Your task to perform on an android device: all mails in gmail Image 0: 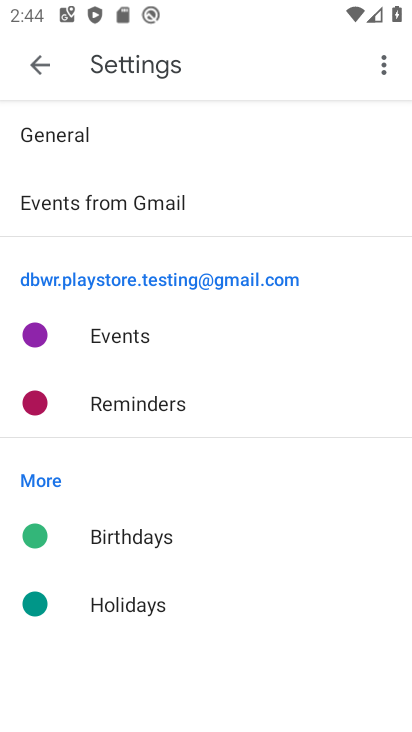
Step 0: press home button
Your task to perform on an android device: all mails in gmail Image 1: 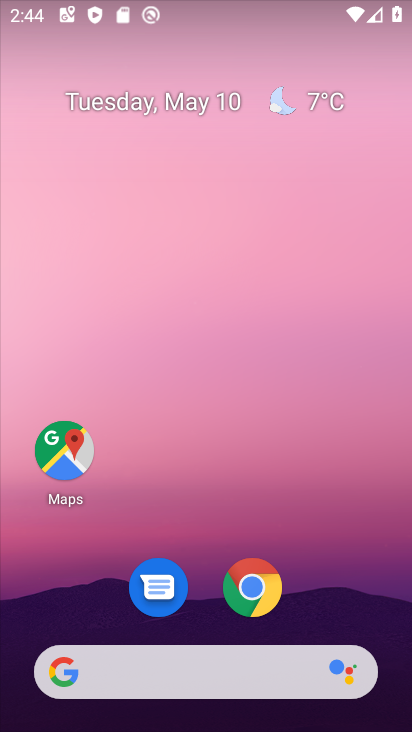
Step 1: drag from (263, 489) to (186, 22)
Your task to perform on an android device: all mails in gmail Image 2: 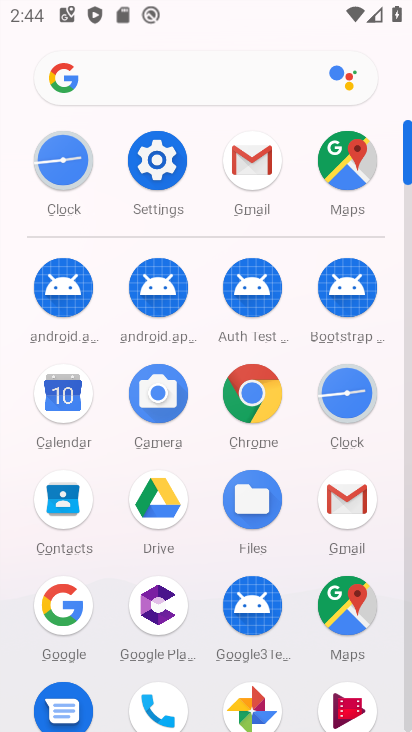
Step 2: click (329, 507)
Your task to perform on an android device: all mails in gmail Image 3: 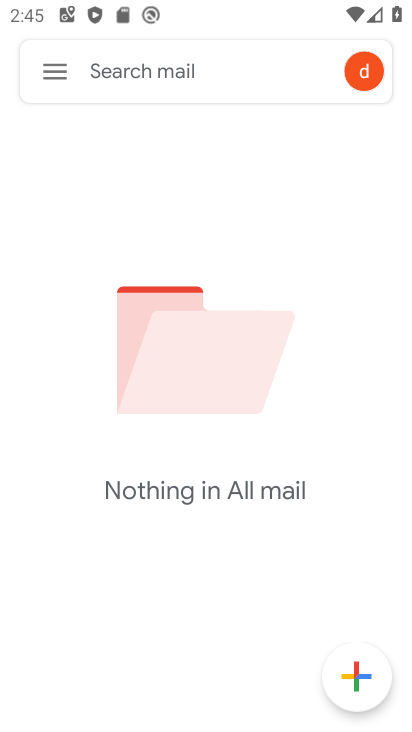
Step 3: task complete